Your task to perform on an android device: install app "LiveIn - Share Your Moment" Image 0: 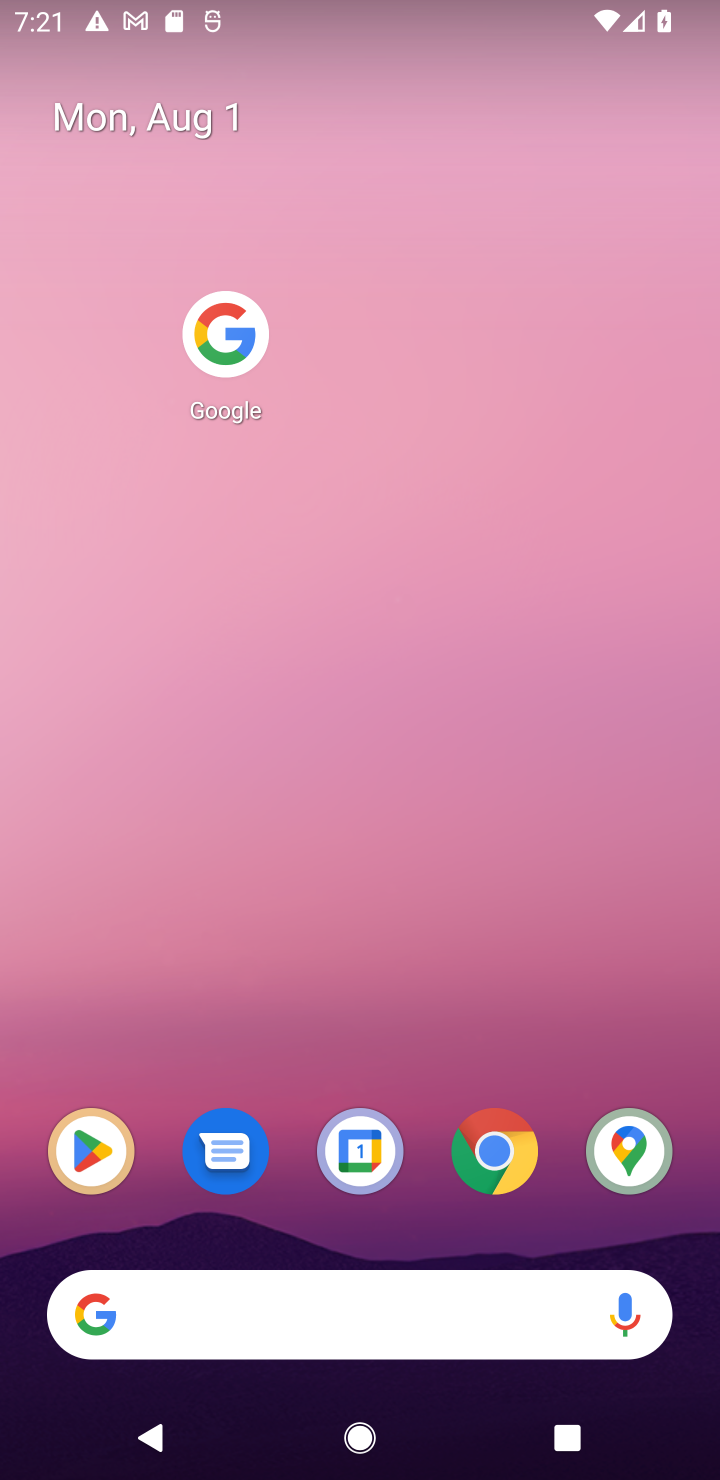
Step 0: drag from (449, 1303) to (572, 11)
Your task to perform on an android device: install app "LiveIn - Share Your Moment" Image 1: 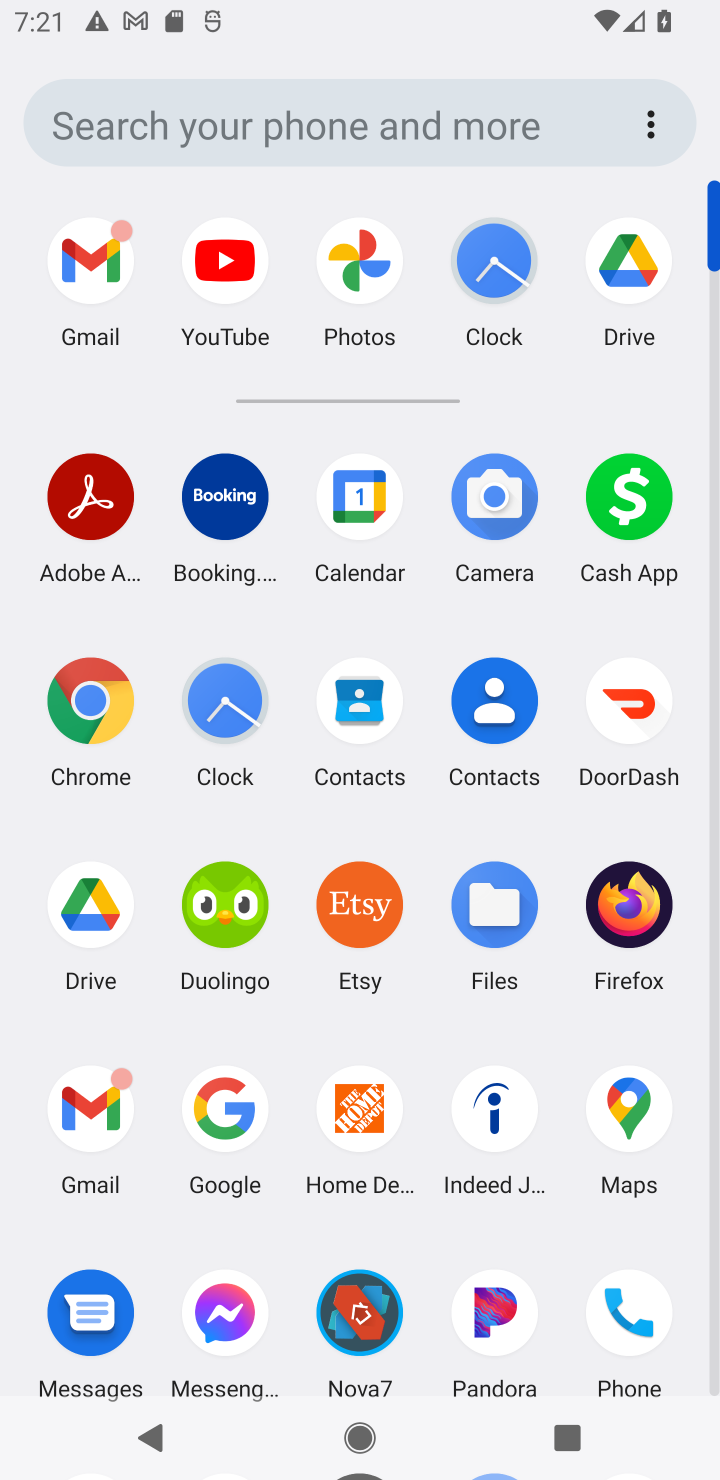
Step 1: drag from (554, 1250) to (535, 756)
Your task to perform on an android device: install app "LiveIn - Share Your Moment" Image 2: 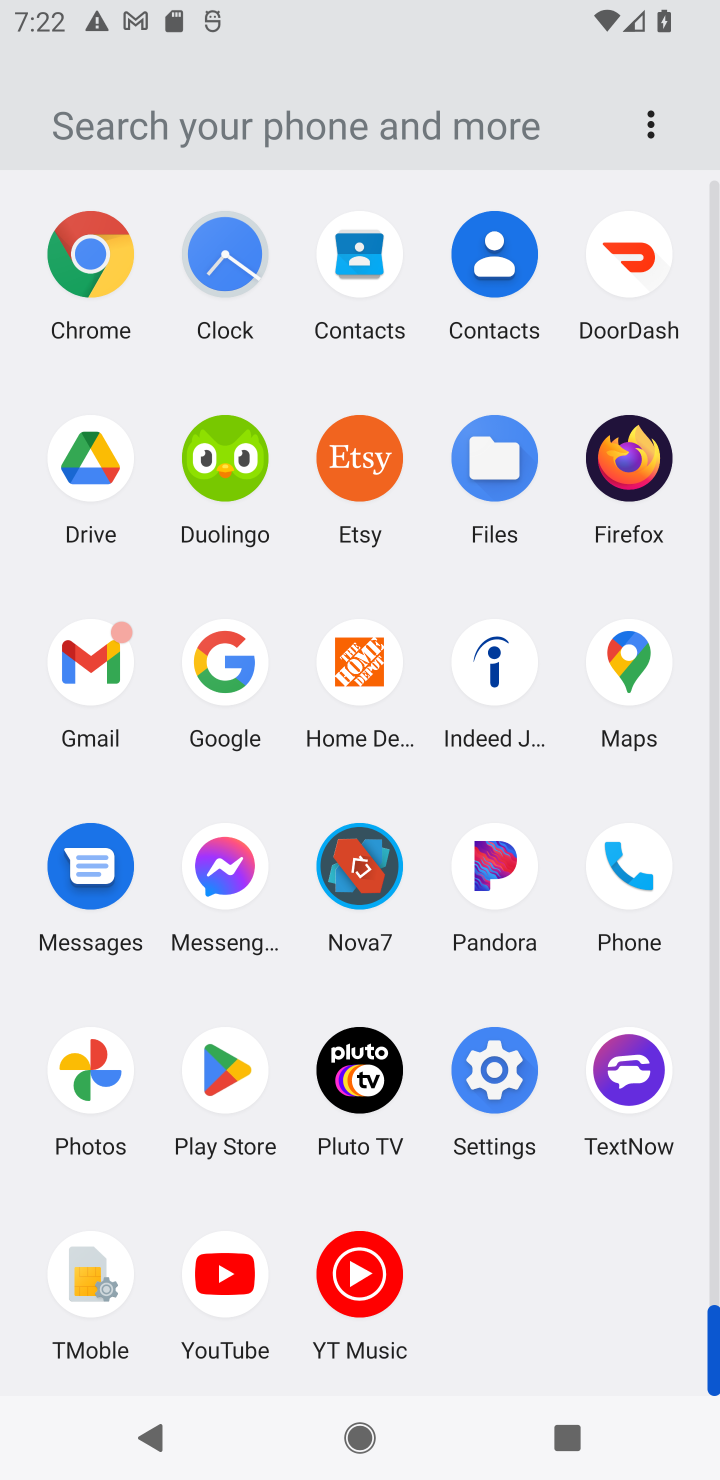
Step 2: click (228, 1097)
Your task to perform on an android device: install app "LiveIn - Share Your Moment" Image 3: 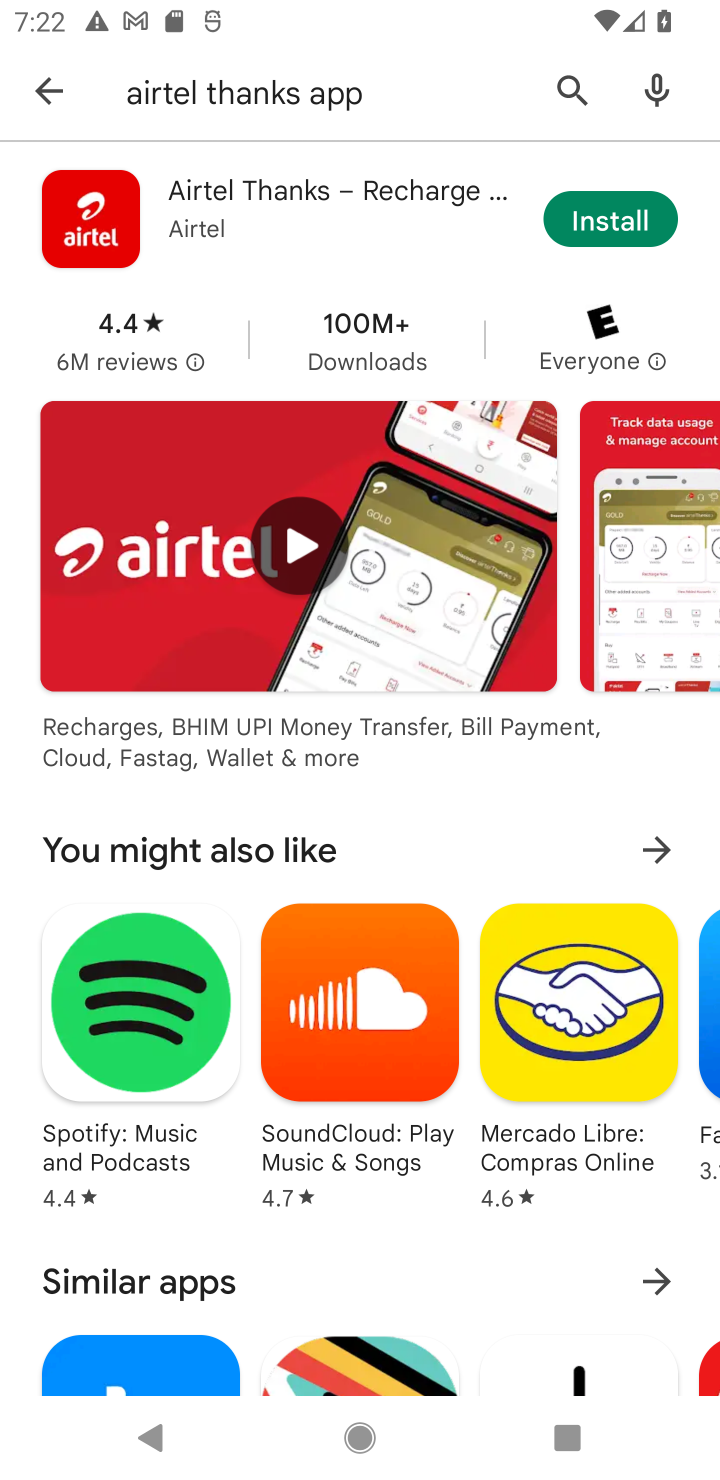
Step 3: click (555, 84)
Your task to perform on an android device: install app "LiveIn - Share Your Moment" Image 4: 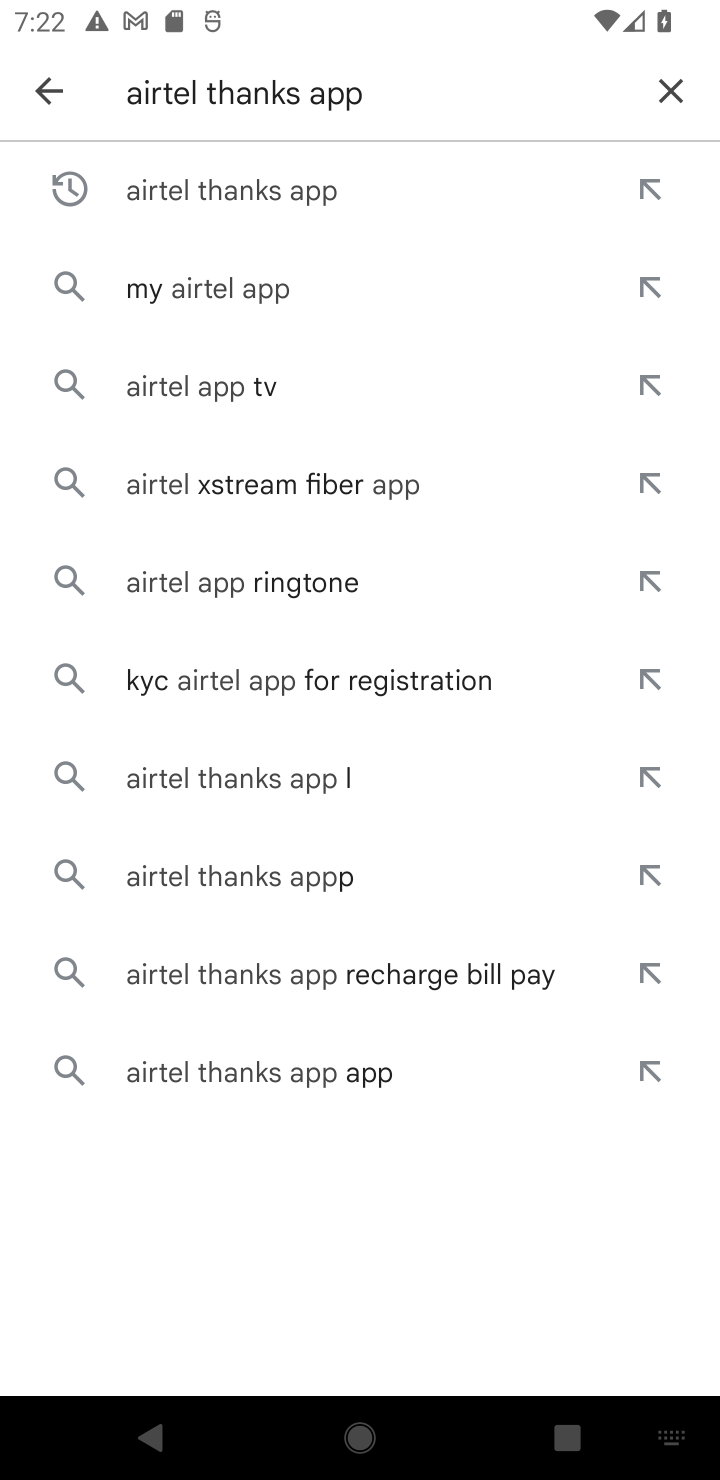
Step 4: click (684, 81)
Your task to perform on an android device: install app "LiveIn - Share Your Moment" Image 5: 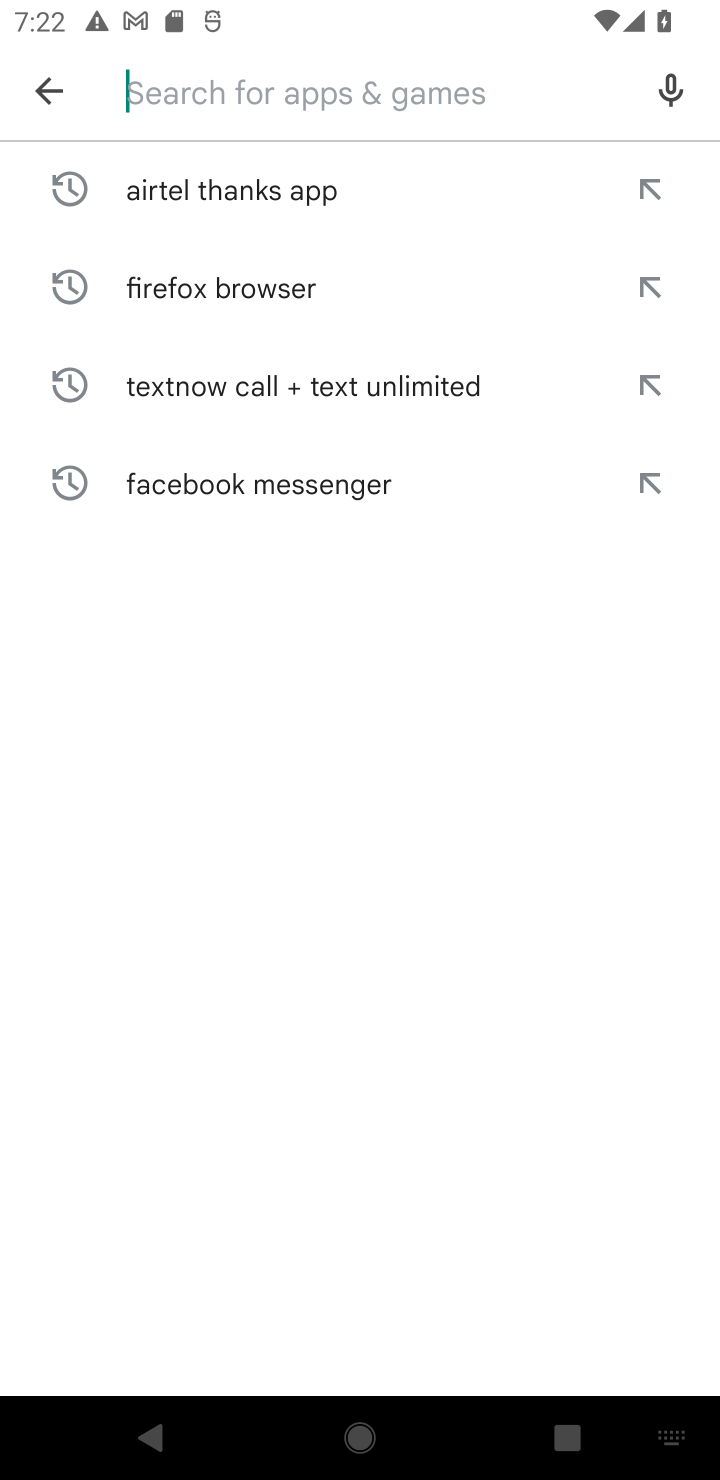
Step 5: type "livein - "
Your task to perform on an android device: install app "LiveIn - Share Your Moment" Image 6: 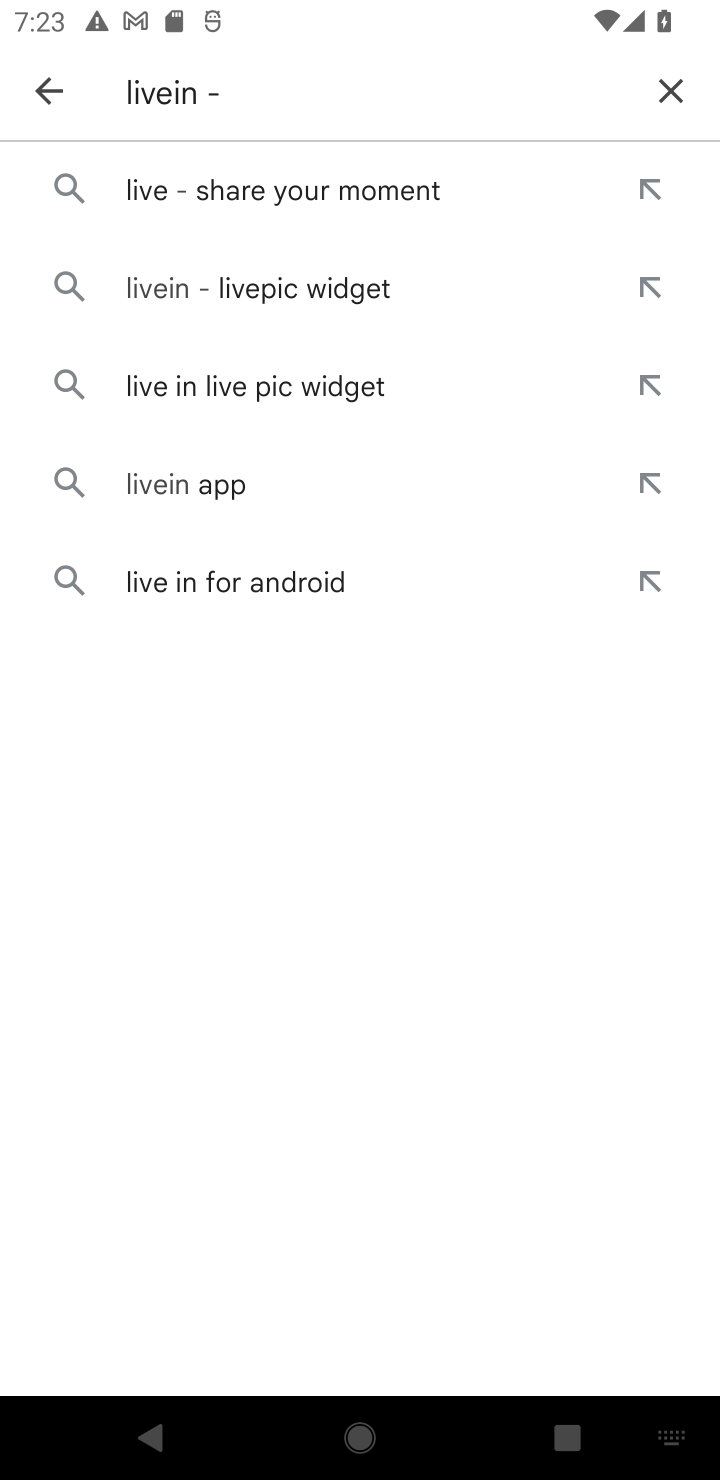
Step 6: click (417, 205)
Your task to perform on an android device: install app "LiveIn - Share Your Moment" Image 7: 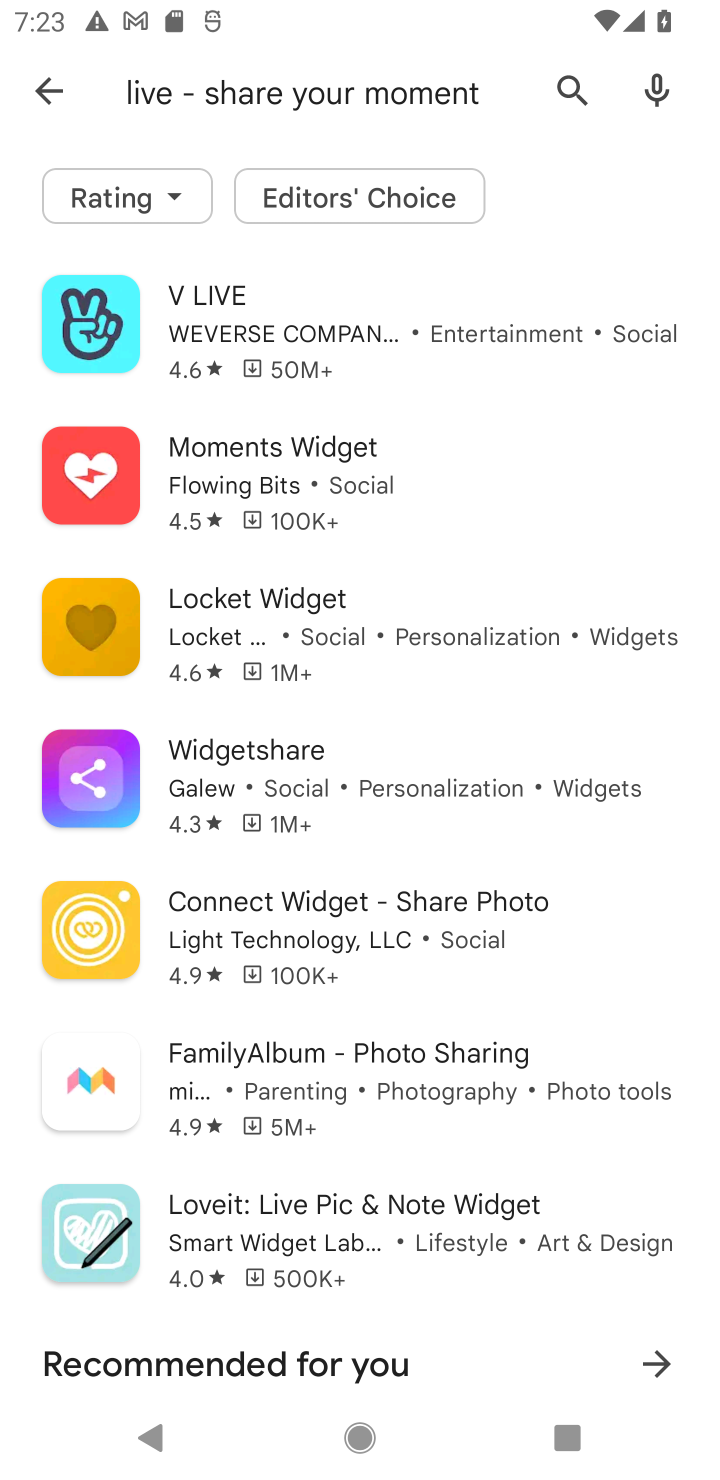
Step 7: task complete